Your task to perform on an android device: Search for a new desk on IKEA Image 0: 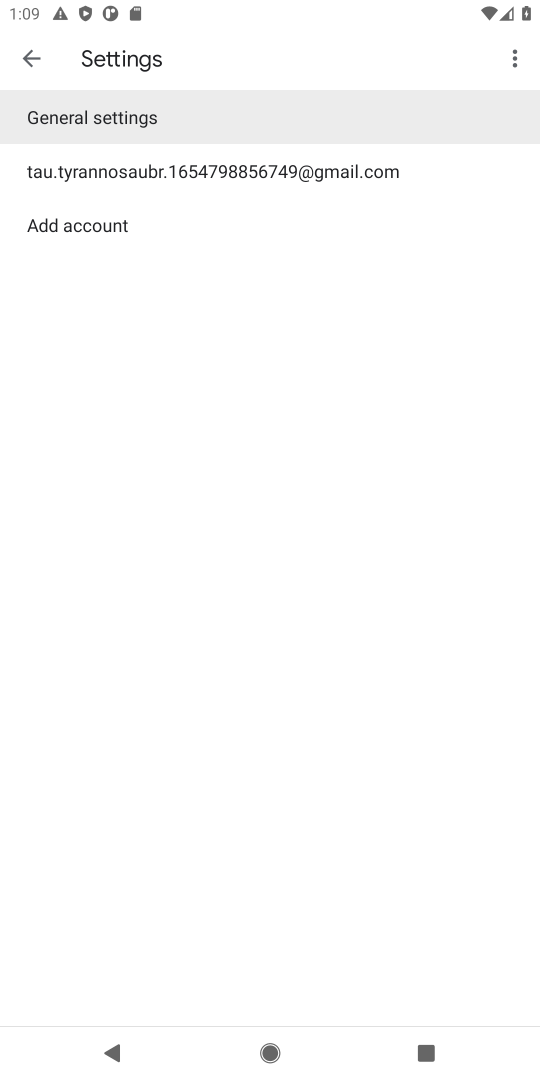
Step 0: press home button
Your task to perform on an android device: Search for a new desk on IKEA Image 1: 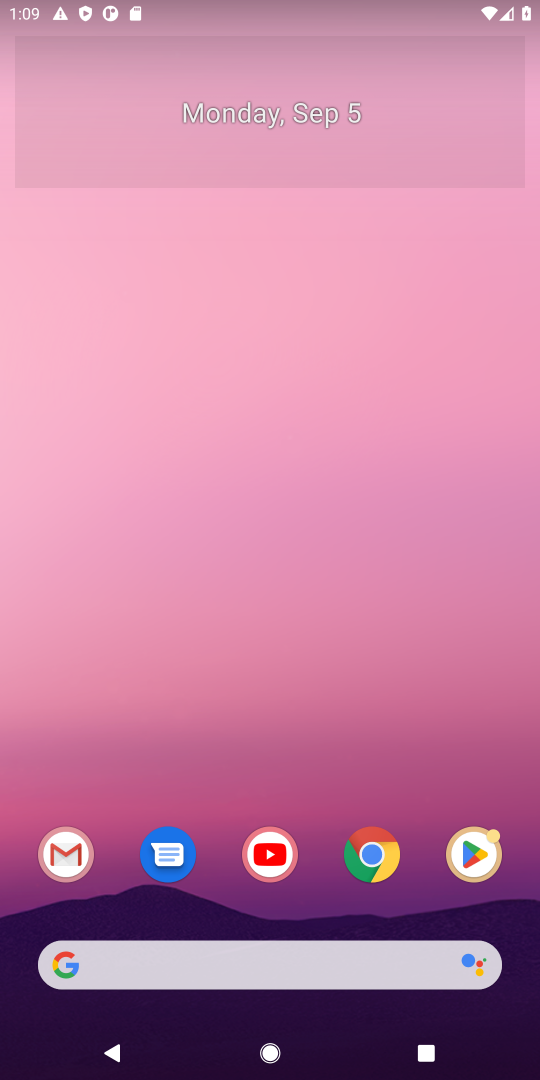
Step 1: press enter
Your task to perform on an android device: Search for a new desk on IKEA Image 2: 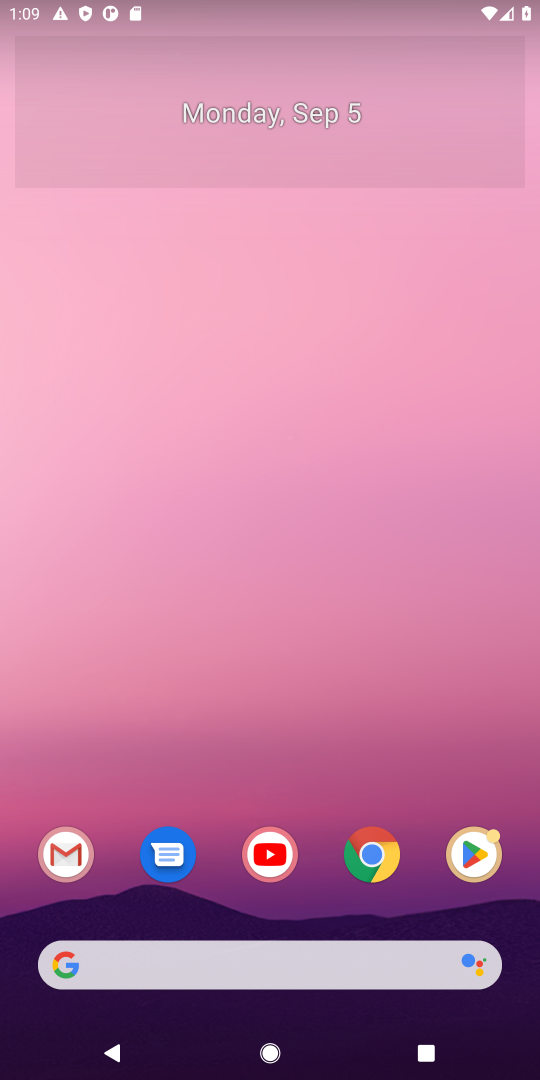
Step 2: type "ikea"
Your task to perform on an android device: Search for a new desk on IKEA Image 3: 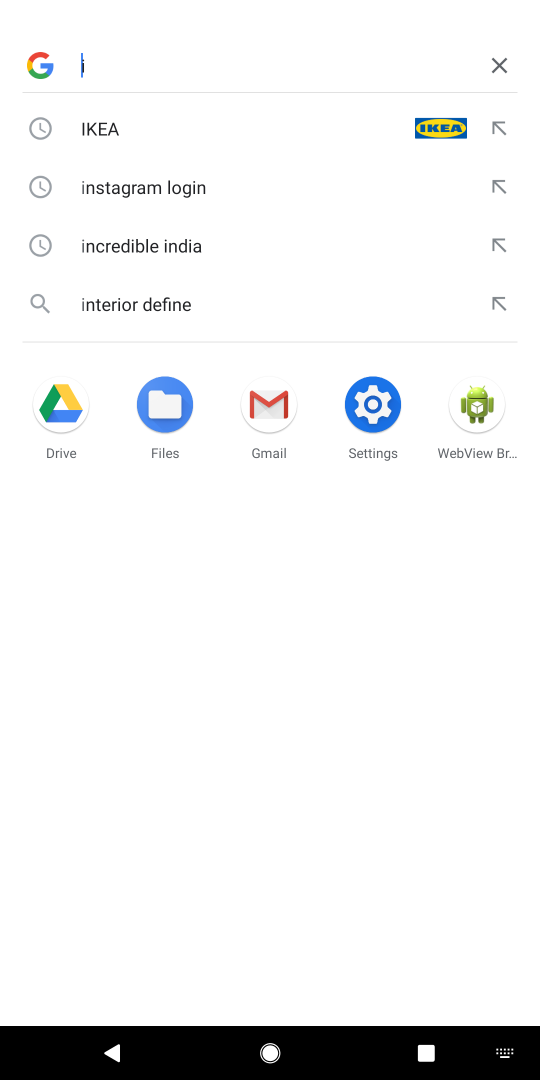
Step 3: click (108, 125)
Your task to perform on an android device: Search for a new desk on IKEA Image 4: 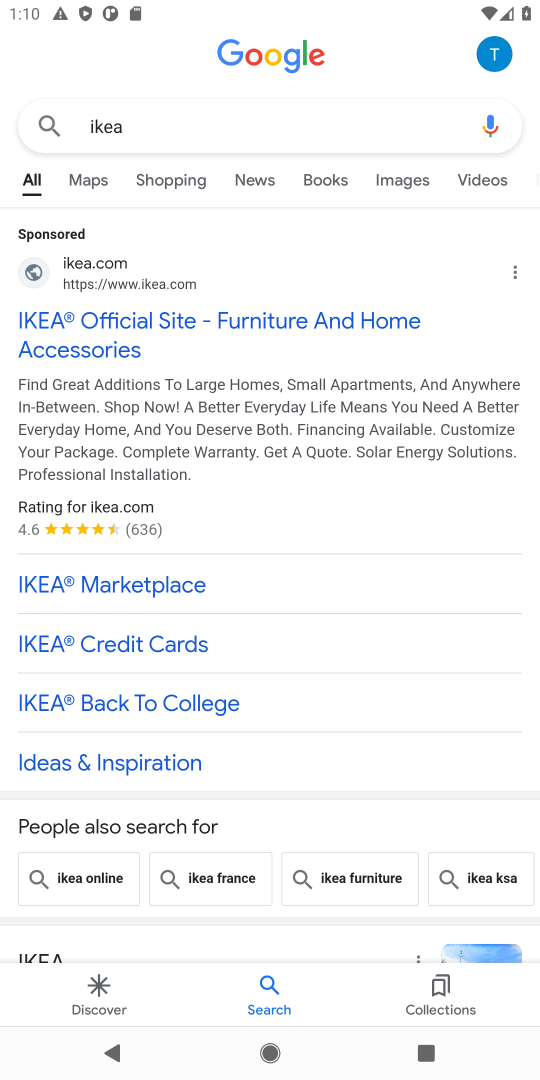
Step 4: click (71, 319)
Your task to perform on an android device: Search for a new desk on IKEA Image 5: 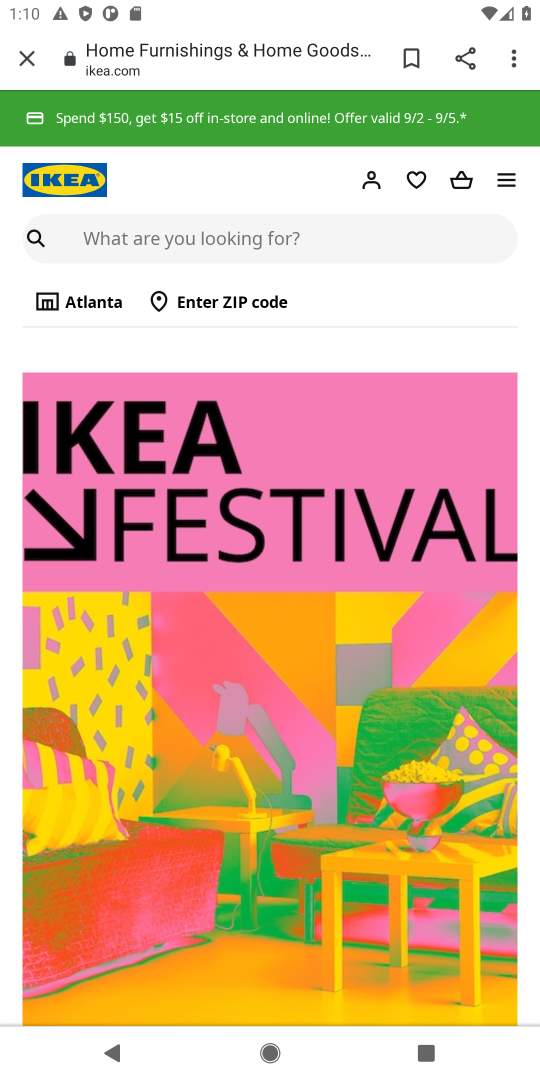
Step 5: click (164, 238)
Your task to perform on an android device: Search for a new desk on IKEA Image 6: 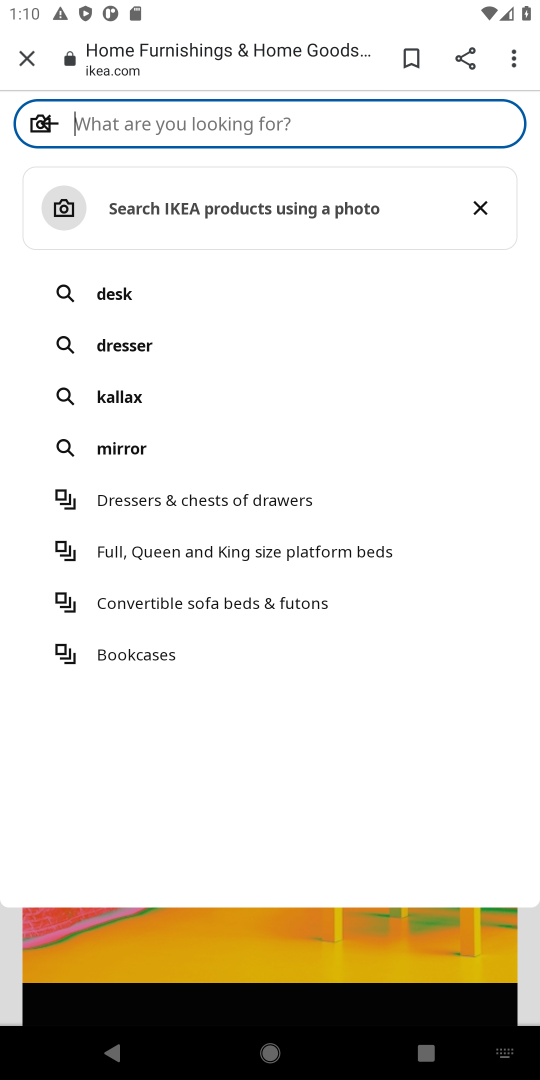
Step 6: press enter
Your task to perform on an android device: Search for a new desk on IKEA Image 7: 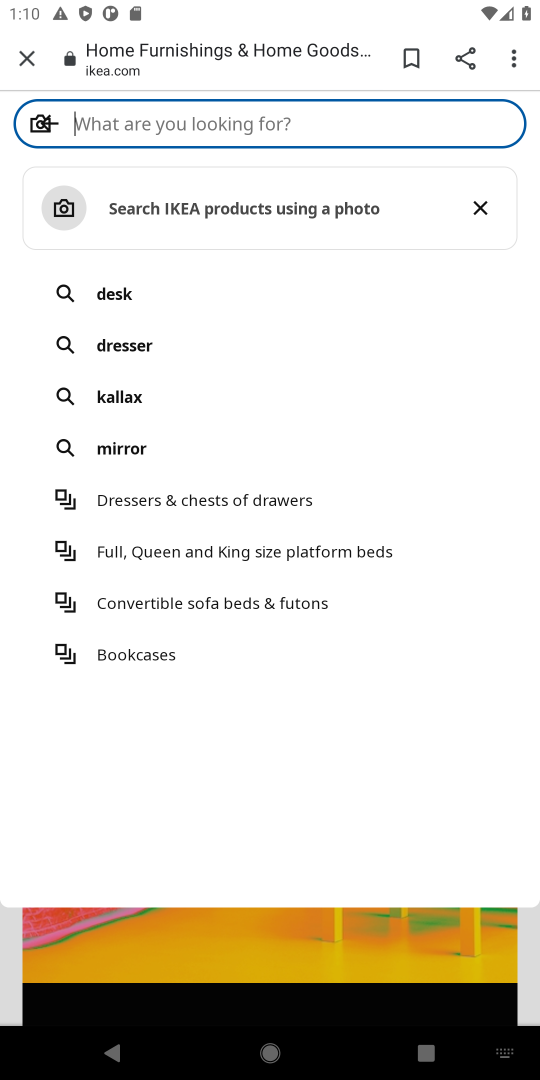
Step 7: type "new desk"
Your task to perform on an android device: Search for a new desk on IKEA Image 8: 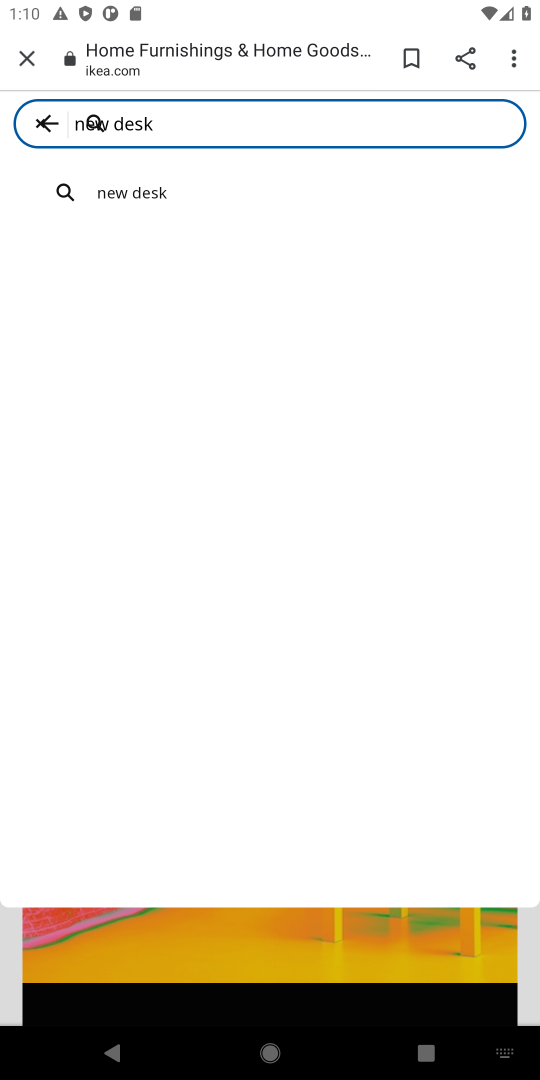
Step 8: click (125, 192)
Your task to perform on an android device: Search for a new desk on IKEA Image 9: 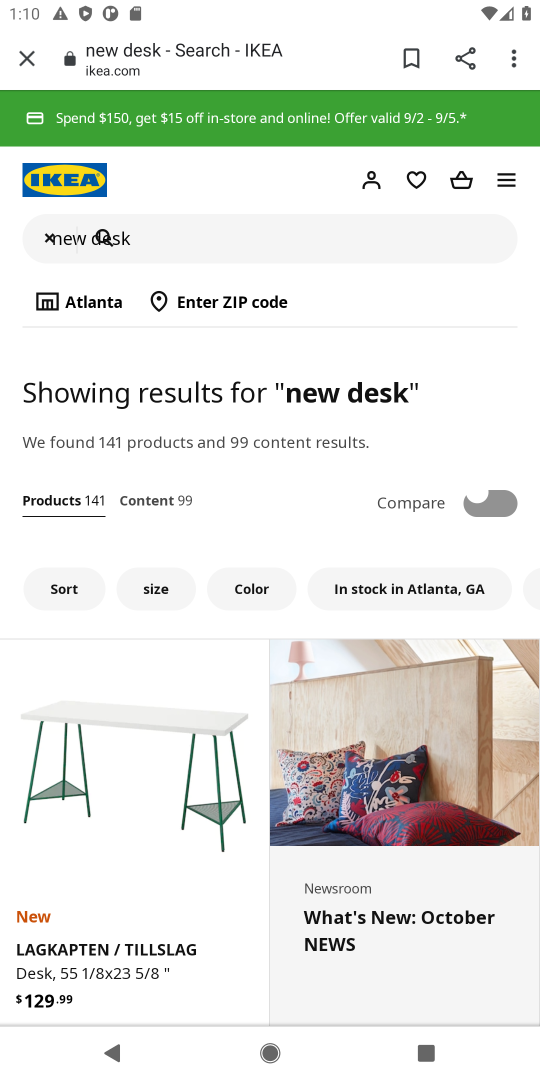
Step 9: task complete